Your task to perform on an android device: turn smart compose on in the gmail app Image 0: 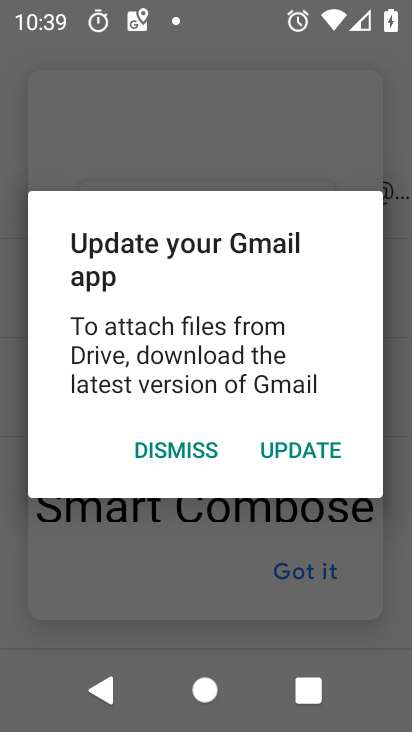
Step 0: press home button
Your task to perform on an android device: turn smart compose on in the gmail app Image 1: 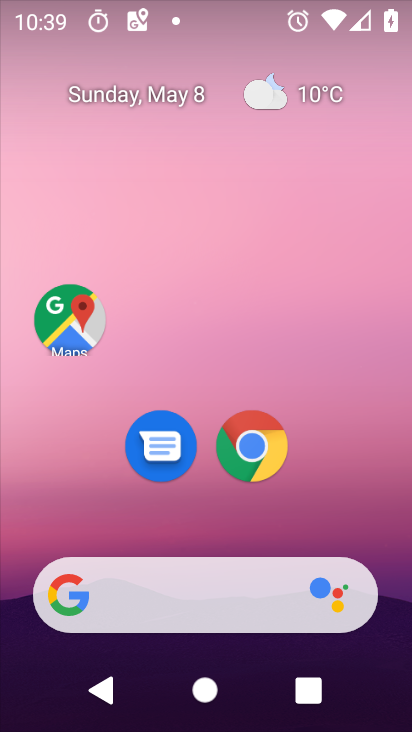
Step 1: drag from (345, 549) to (357, 1)
Your task to perform on an android device: turn smart compose on in the gmail app Image 2: 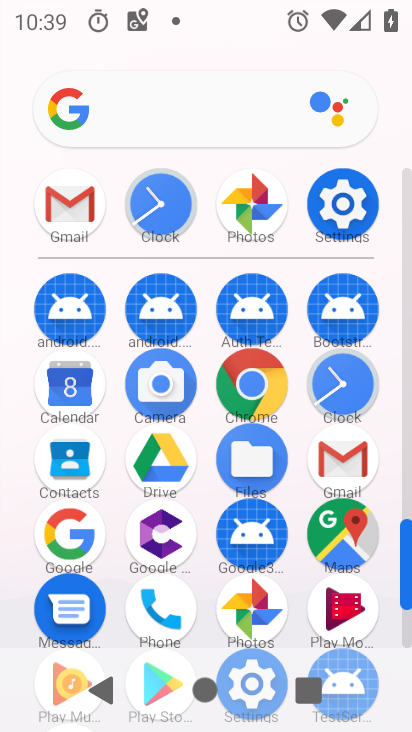
Step 2: click (68, 217)
Your task to perform on an android device: turn smart compose on in the gmail app Image 3: 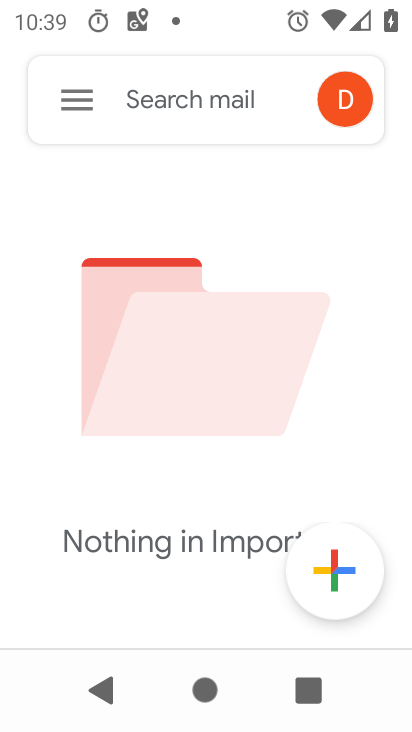
Step 3: click (71, 103)
Your task to perform on an android device: turn smart compose on in the gmail app Image 4: 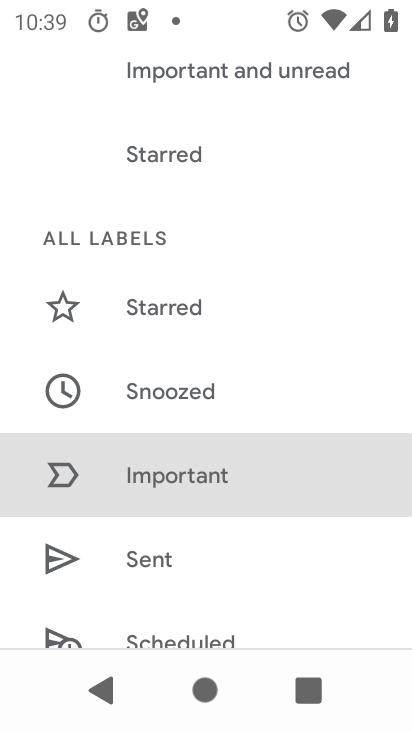
Step 4: drag from (235, 508) to (233, 105)
Your task to perform on an android device: turn smart compose on in the gmail app Image 5: 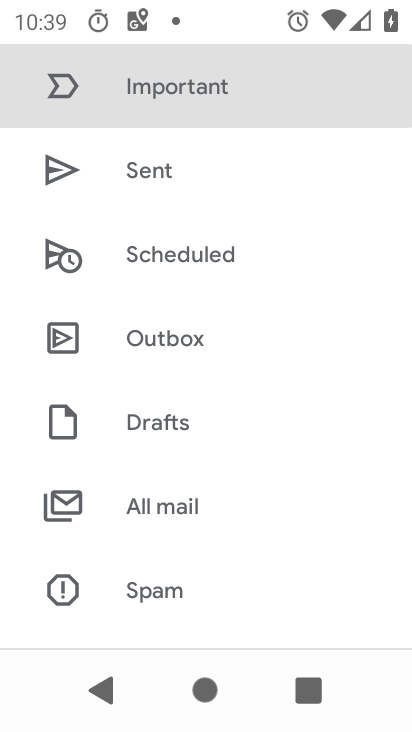
Step 5: drag from (255, 491) to (258, 86)
Your task to perform on an android device: turn smart compose on in the gmail app Image 6: 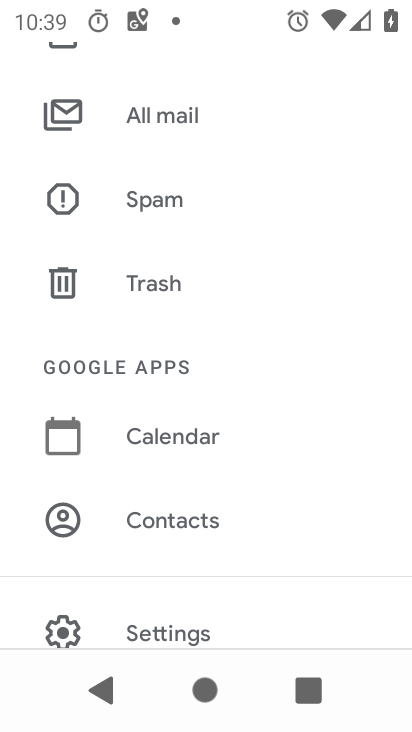
Step 6: drag from (241, 500) to (246, 134)
Your task to perform on an android device: turn smart compose on in the gmail app Image 7: 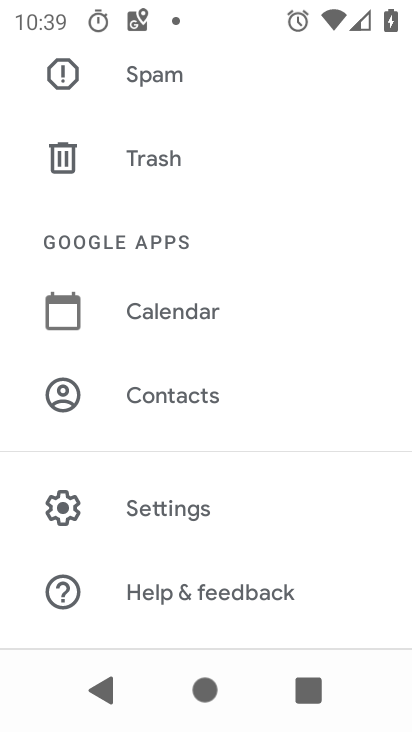
Step 7: click (157, 503)
Your task to perform on an android device: turn smart compose on in the gmail app Image 8: 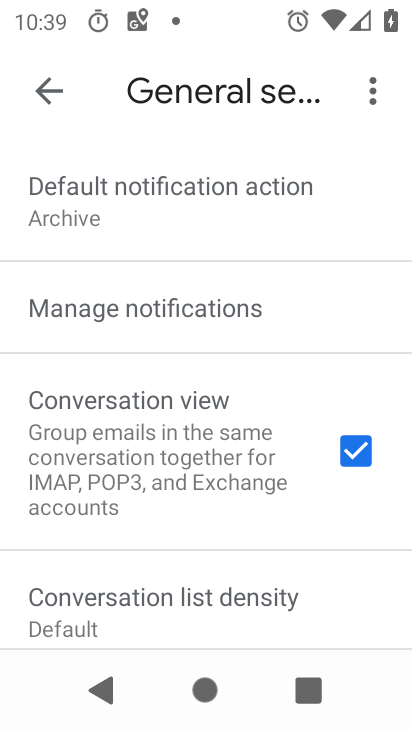
Step 8: drag from (155, 491) to (157, 38)
Your task to perform on an android device: turn smart compose on in the gmail app Image 9: 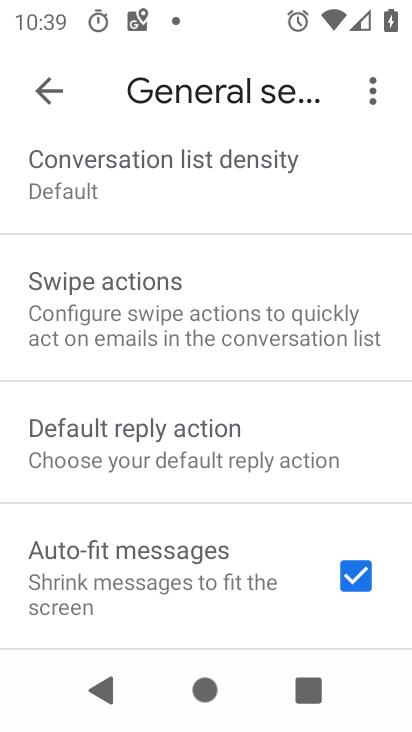
Step 9: click (40, 95)
Your task to perform on an android device: turn smart compose on in the gmail app Image 10: 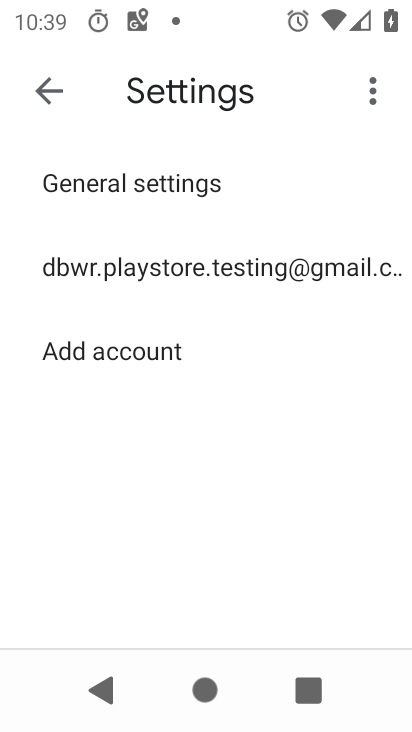
Step 10: click (146, 274)
Your task to perform on an android device: turn smart compose on in the gmail app Image 11: 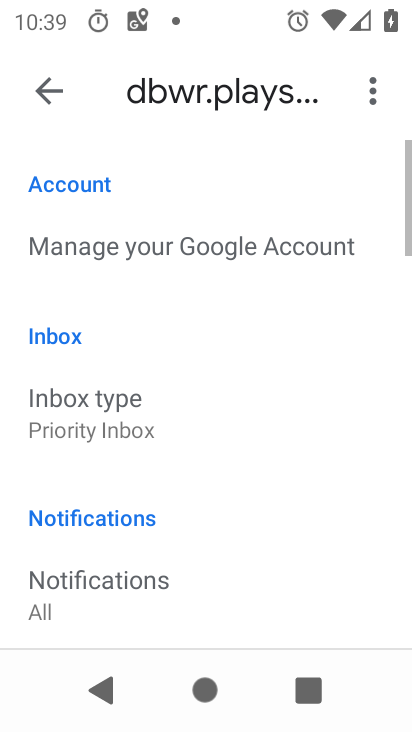
Step 11: task complete